Your task to perform on an android device: turn off javascript in the chrome app Image 0: 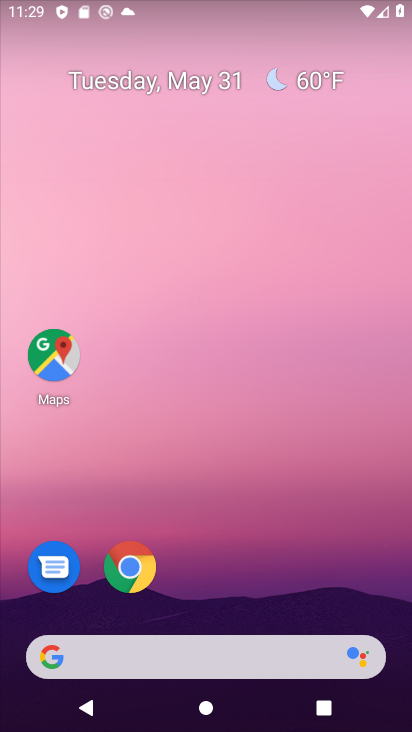
Step 0: click (116, 568)
Your task to perform on an android device: turn off javascript in the chrome app Image 1: 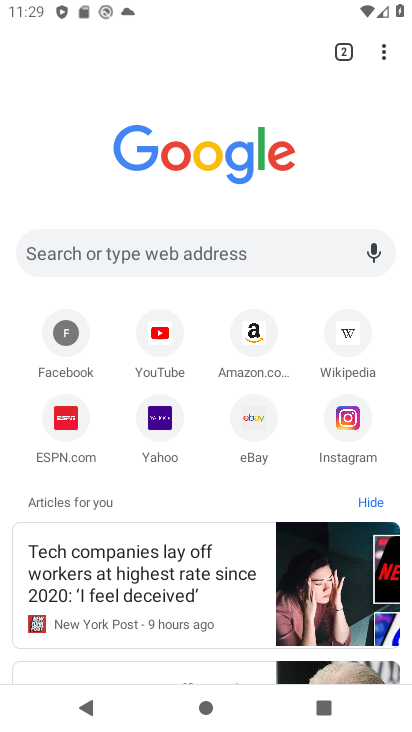
Step 1: drag from (372, 52) to (197, 478)
Your task to perform on an android device: turn off javascript in the chrome app Image 2: 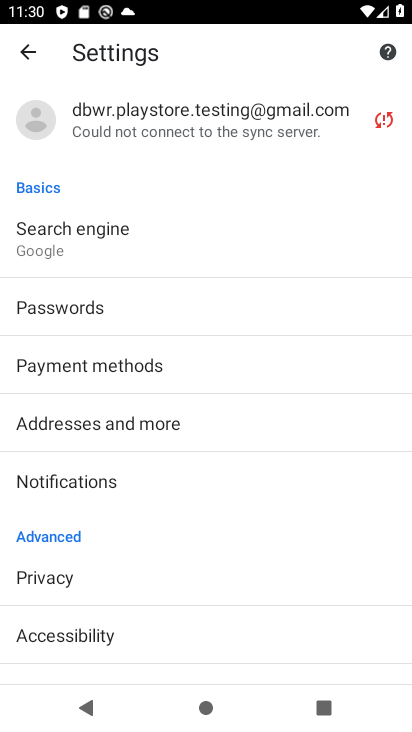
Step 2: drag from (110, 578) to (122, 169)
Your task to perform on an android device: turn off javascript in the chrome app Image 3: 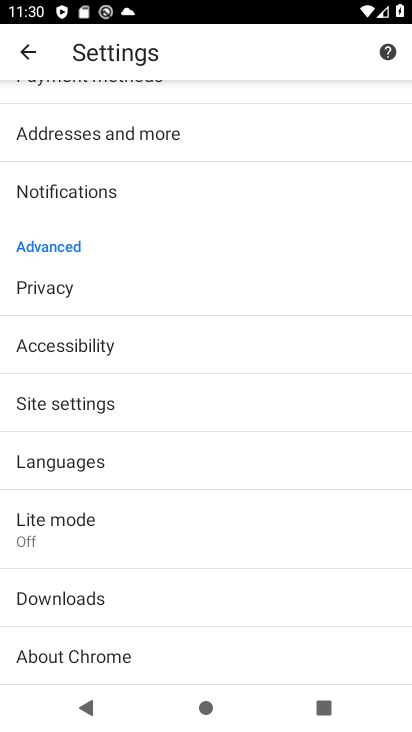
Step 3: click (105, 402)
Your task to perform on an android device: turn off javascript in the chrome app Image 4: 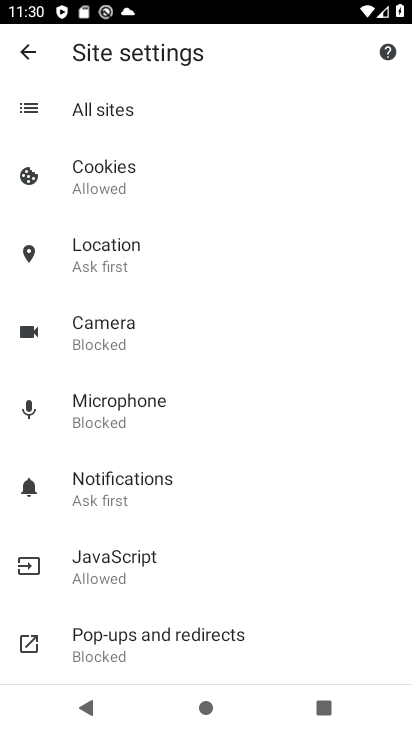
Step 4: click (109, 572)
Your task to perform on an android device: turn off javascript in the chrome app Image 5: 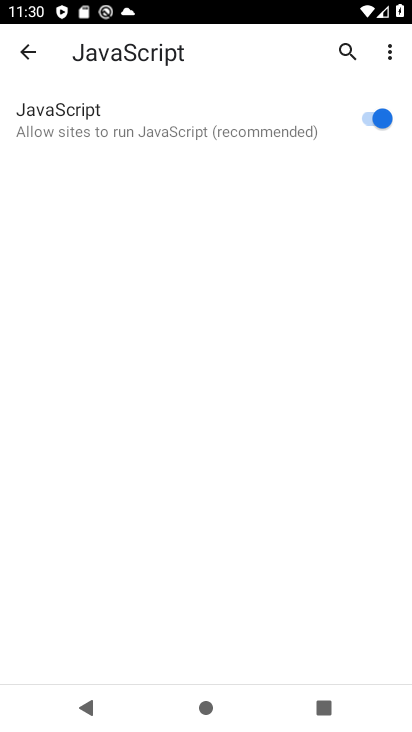
Step 5: click (378, 106)
Your task to perform on an android device: turn off javascript in the chrome app Image 6: 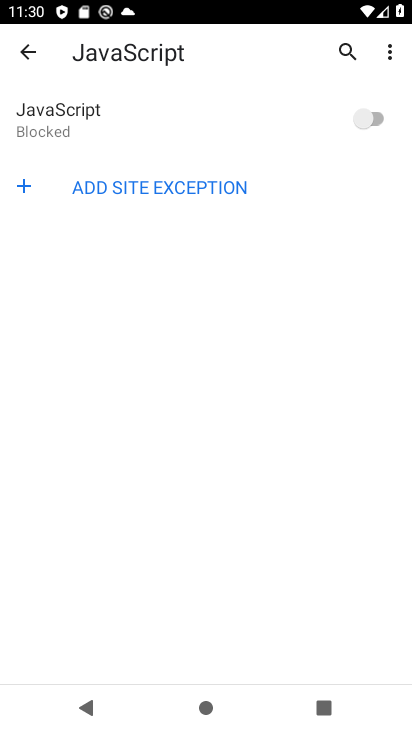
Step 6: task complete